Your task to perform on an android device: Show the shopping cart on ebay. Search for bose quietcomfort 35 on ebay, select the first entry, and add it to the cart. Image 0: 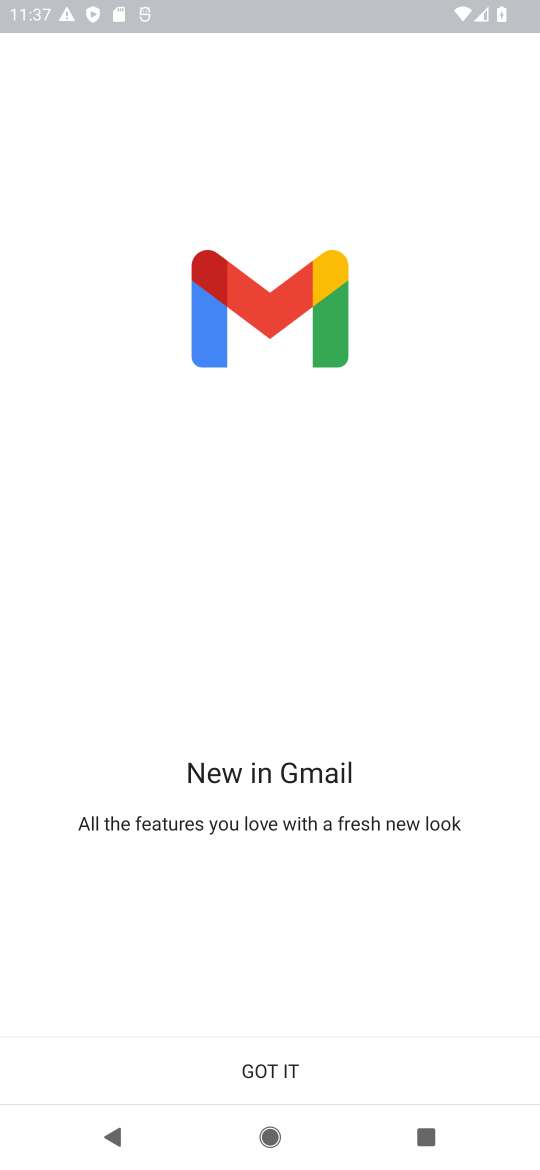
Step 0: press home button
Your task to perform on an android device: Show the shopping cart on ebay. Search for bose quietcomfort 35 on ebay, select the first entry, and add it to the cart. Image 1: 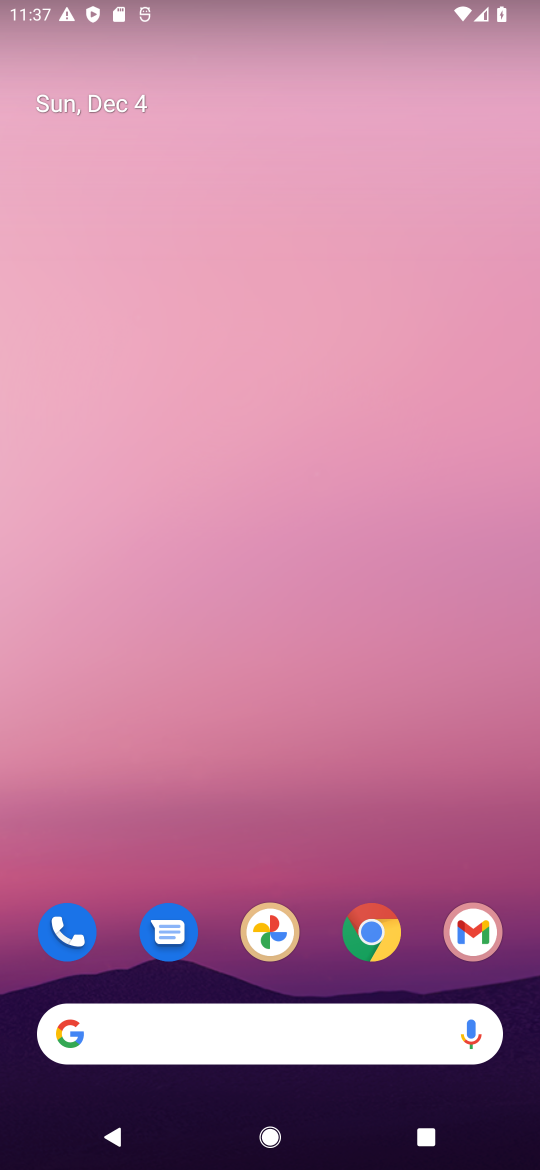
Step 1: click (376, 926)
Your task to perform on an android device: Show the shopping cart on ebay. Search for bose quietcomfort 35 on ebay, select the first entry, and add it to the cart. Image 2: 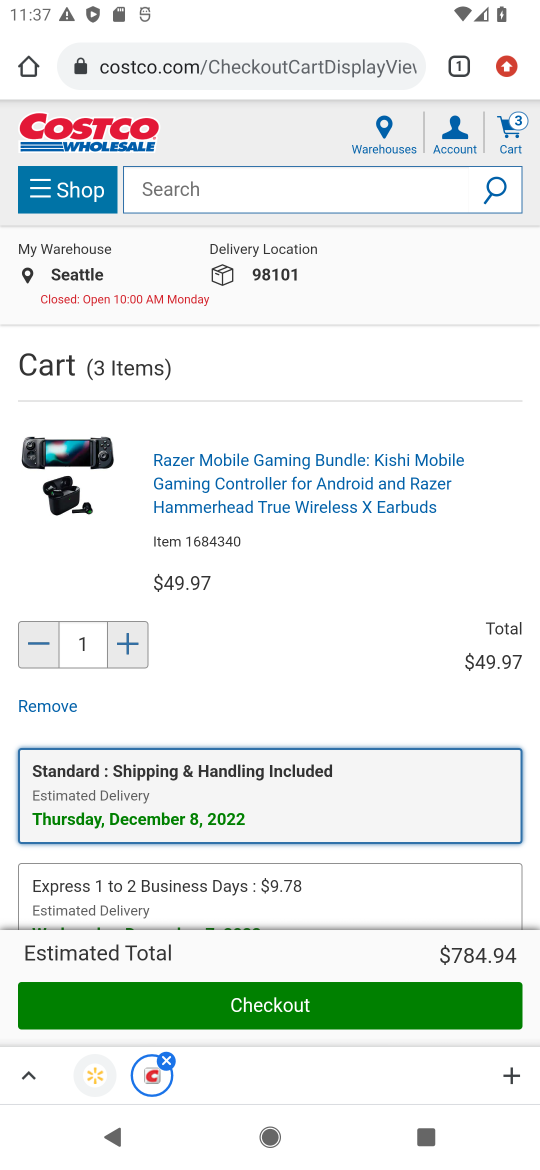
Step 2: click (258, 56)
Your task to perform on an android device: Show the shopping cart on ebay. Search for bose quietcomfort 35 on ebay, select the first entry, and add it to the cart. Image 3: 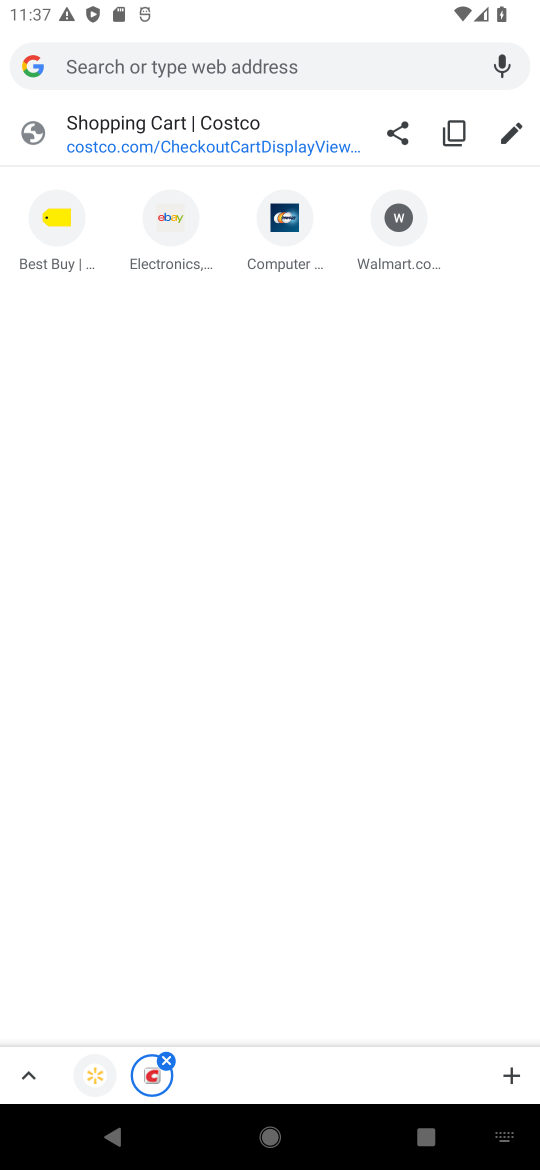
Step 3: type "ebay"
Your task to perform on an android device: Show the shopping cart on ebay. Search for bose quietcomfort 35 on ebay, select the first entry, and add it to the cart. Image 4: 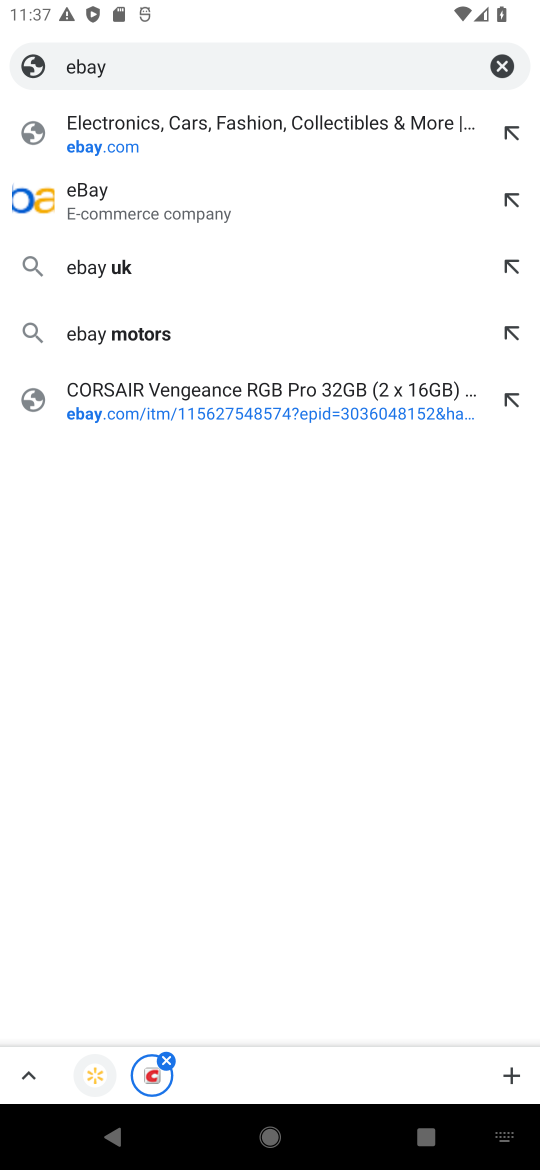
Step 4: click (127, 137)
Your task to perform on an android device: Show the shopping cart on ebay. Search for bose quietcomfort 35 on ebay, select the first entry, and add it to the cart. Image 5: 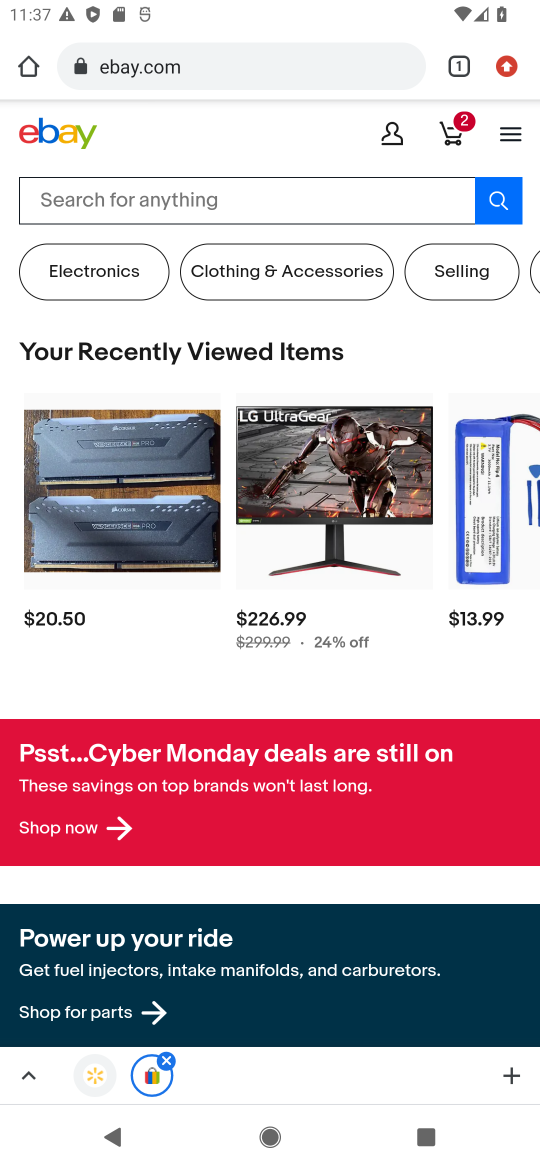
Step 5: click (244, 196)
Your task to perform on an android device: Show the shopping cart on ebay. Search for bose quietcomfort 35 on ebay, select the first entry, and add it to the cart. Image 6: 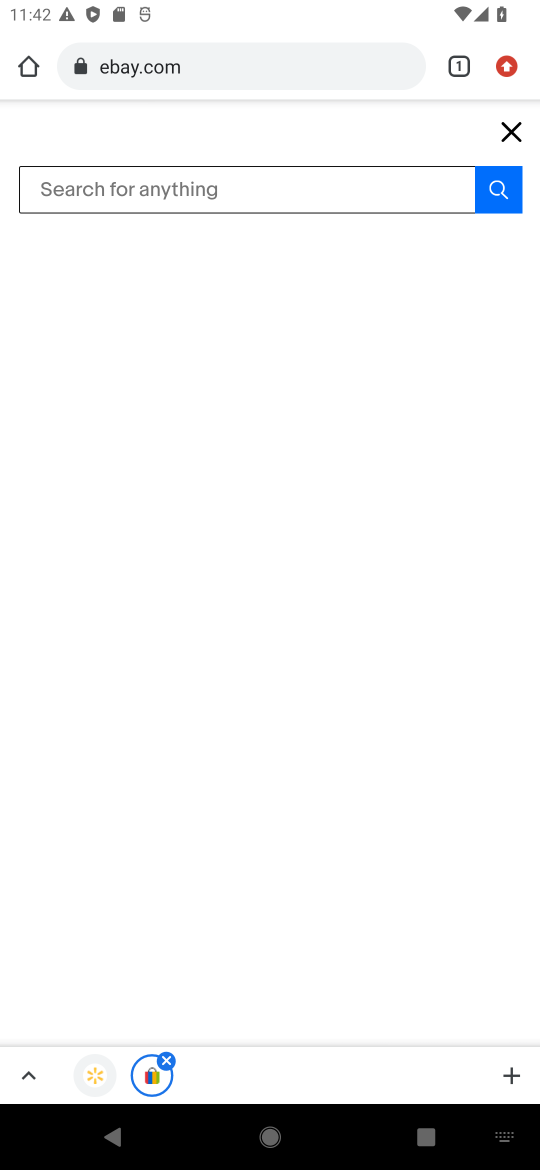
Step 6: task complete